Your task to perform on an android device: turn on improve location accuracy Image 0: 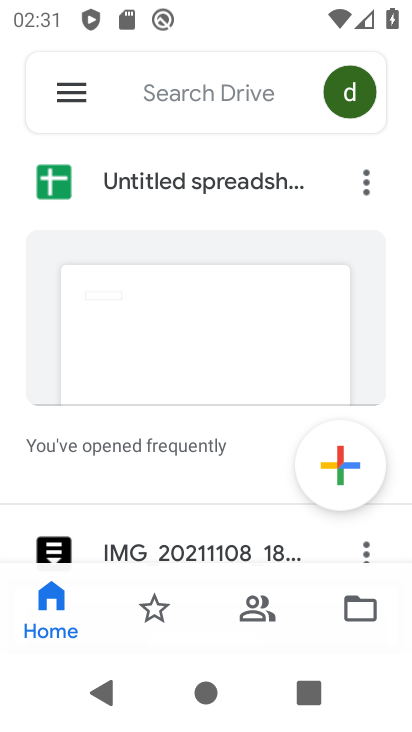
Step 0: press home button
Your task to perform on an android device: turn on improve location accuracy Image 1: 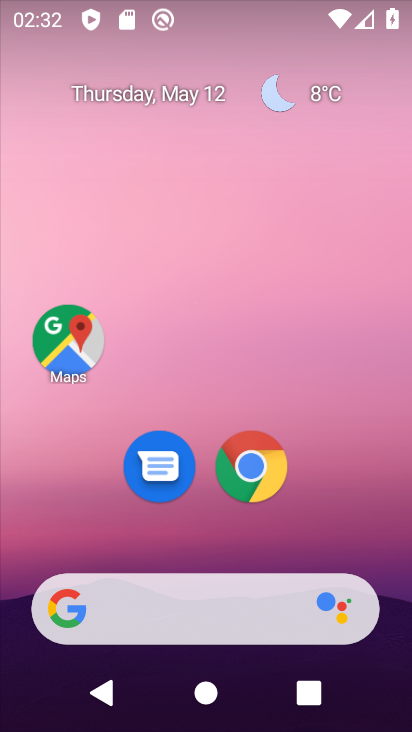
Step 1: drag from (370, 523) to (339, 105)
Your task to perform on an android device: turn on improve location accuracy Image 2: 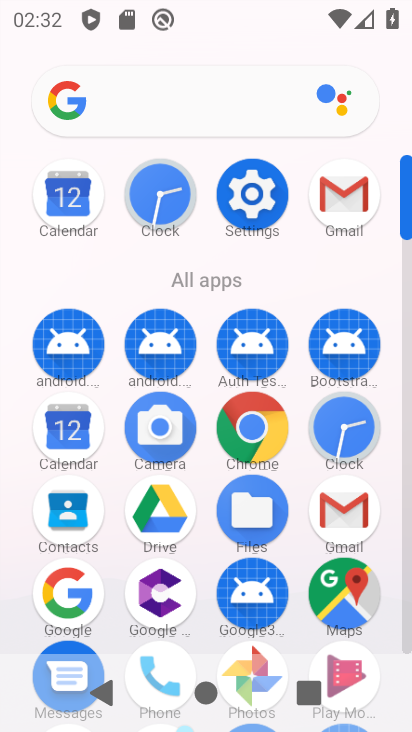
Step 2: click (270, 195)
Your task to perform on an android device: turn on improve location accuracy Image 3: 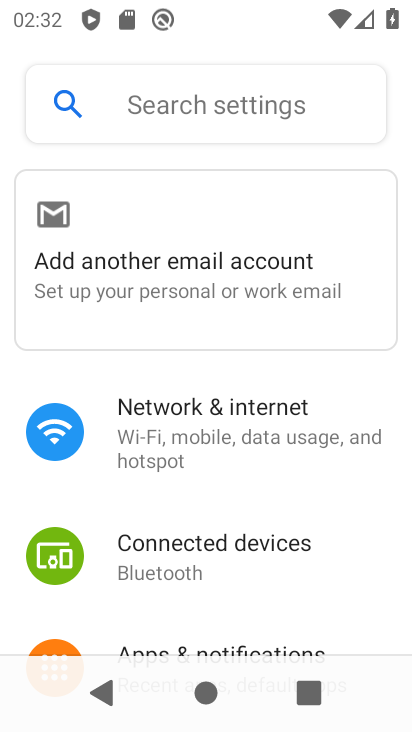
Step 3: drag from (251, 549) to (240, 146)
Your task to perform on an android device: turn on improve location accuracy Image 4: 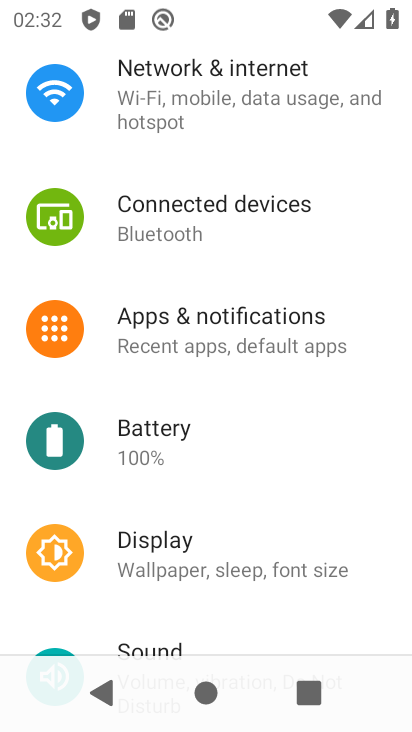
Step 4: drag from (227, 527) to (221, 183)
Your task to perform on an android device: turn on improve location accuracy Image 5: 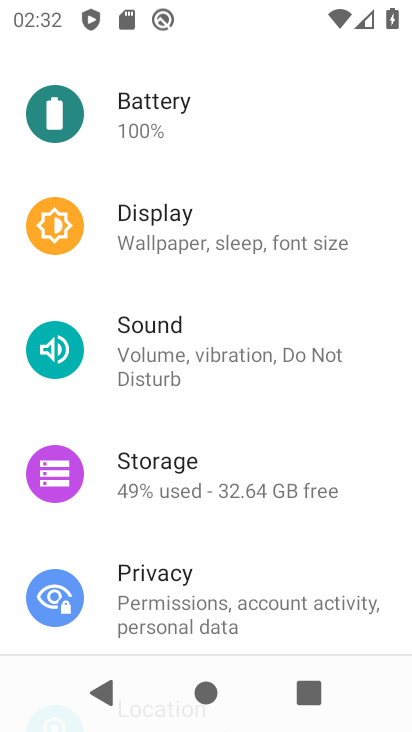
Step 5: drag from (230, 559) to (252, 25)
Your task to perform on an android device: turn on improve location accuracy Image 6: 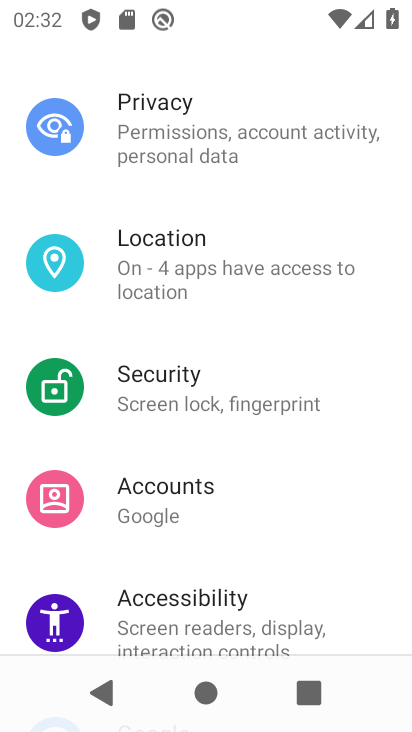
Step 6: click (216, 286)
Your task to perform on an android device: turn on improve location accuracy Image 7: 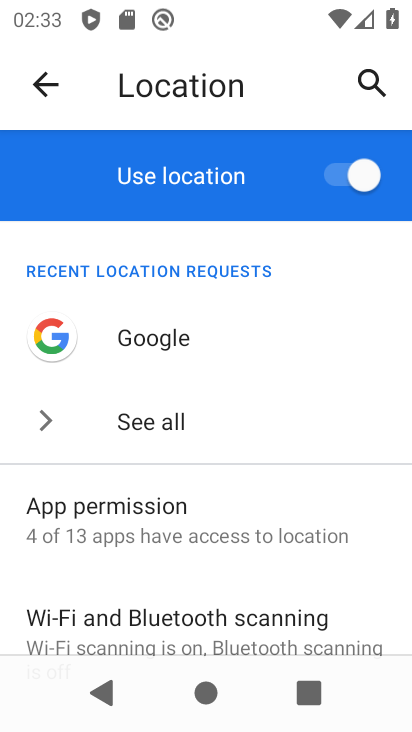
Step 7: drag from (220, 569) to (200, 177)
Your task to perform on an android device: turn on improve location accuracy Image 8: 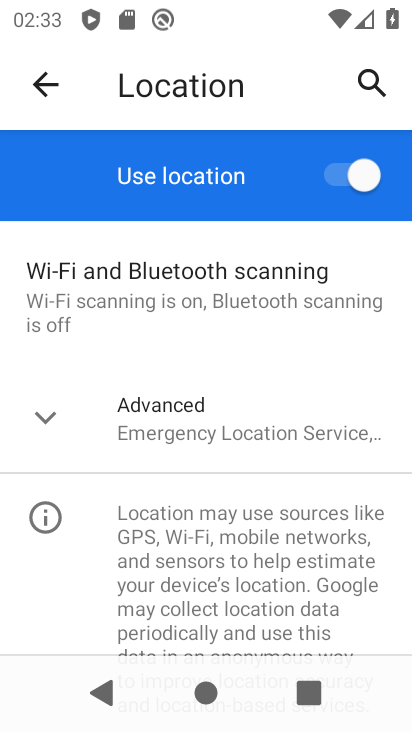
Step 8: click (185, 409)
Your task to perform on an android device: turn on improve location accuracy Image 9: 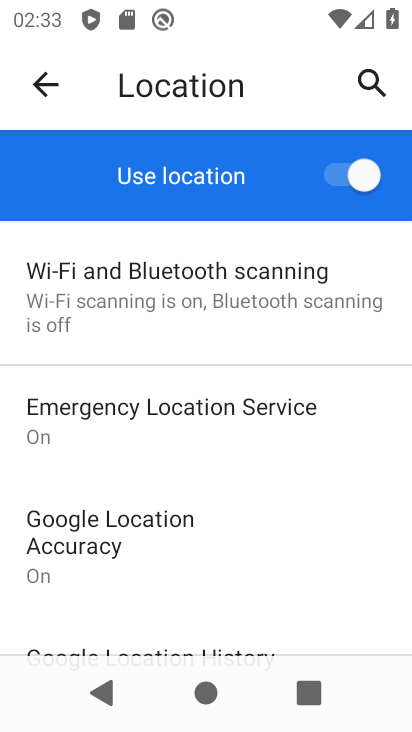
Step 9: click (194, 533)
Your task to perform on an android device: turn on improve location accuracy Image 10: 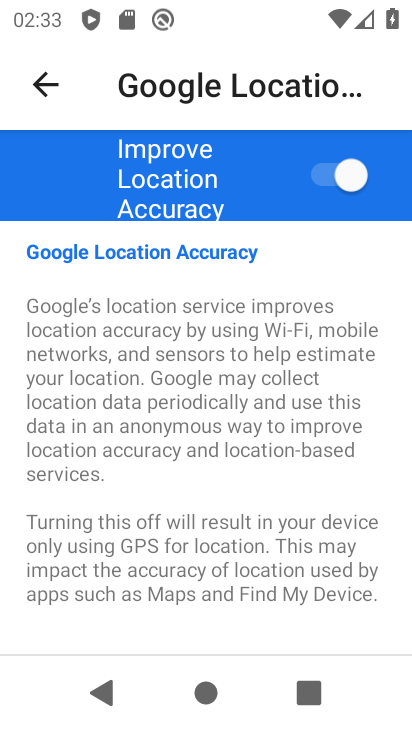
Step 10: task complete